Your task to perform on an android device: Open the calendar app, open the side menu, and click the "Day" option Image 0: 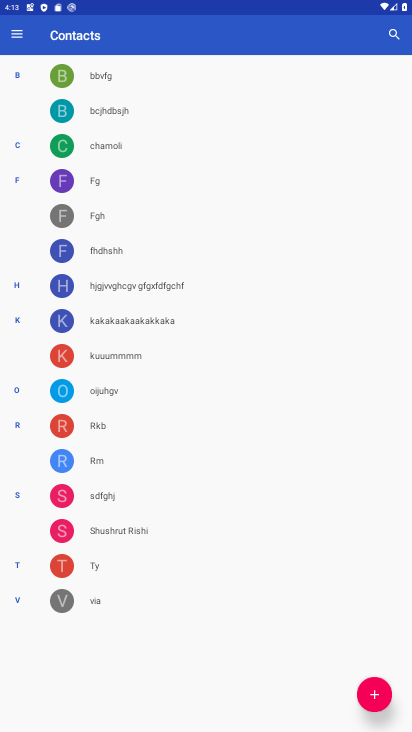
Step 0: press home button
Your task to perform on an android device: Open the calendar app, open the side menu, and click the "Day" option Image 1: 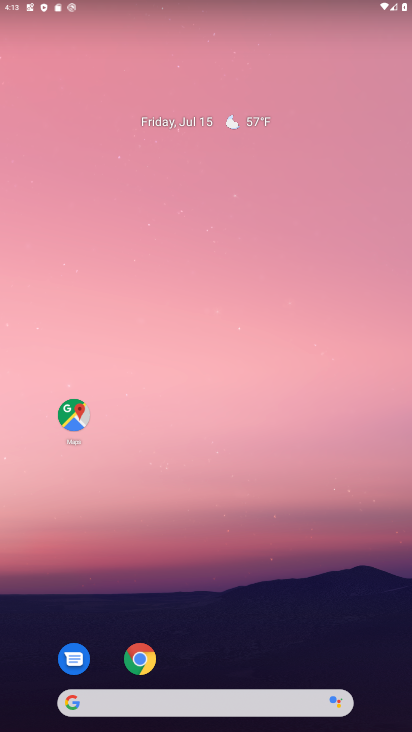
Step 1: drag from (283, 631) to (206, 71)
Your task to perform on an android device: Open the calendar app, open the side menu, and click the "Day" option Image 2: 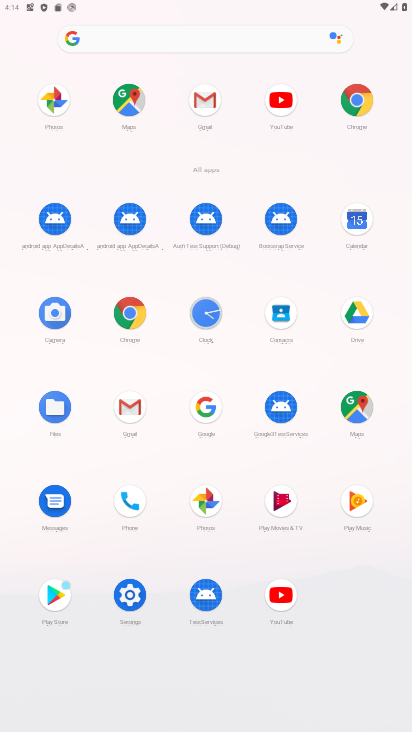
Step 2: click (365, 232)
Your task to perform on an android device: Open the calendar app, open the side menu, and click the "Day" option Image 3: 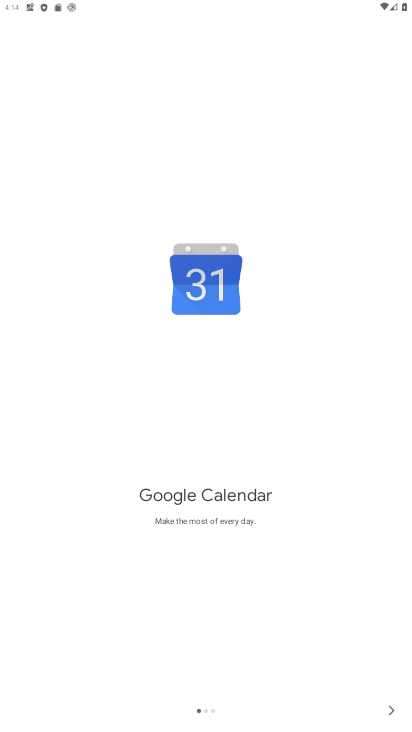
Step 3: click (397, 711)
Your task to perform on an android device: Open the calendar app, open the side menu, and click the "Day" option Image 4: 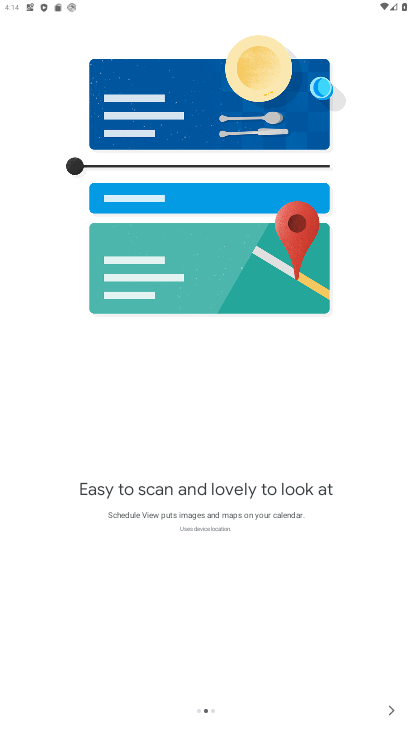
Step 4: click (396, 711)
Your task to perform on an android device: Open the calendar app, open the side menu, and click the "Day" option Image 5: 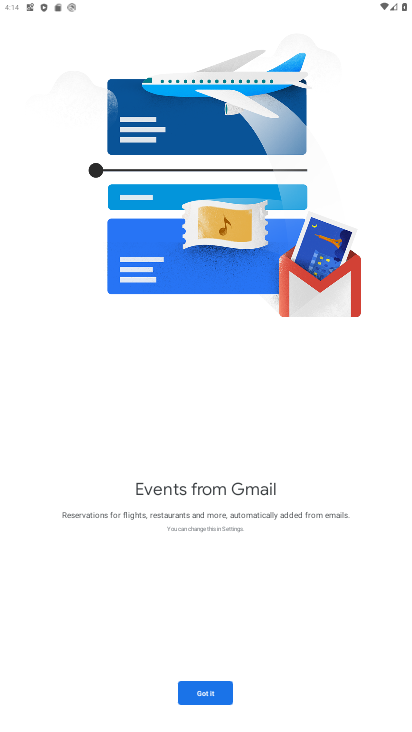
Step 5: click (201, 699)
Your task to perform on an android device: Open the calendar app, open the side menu, and click the "Day" option Image 6: 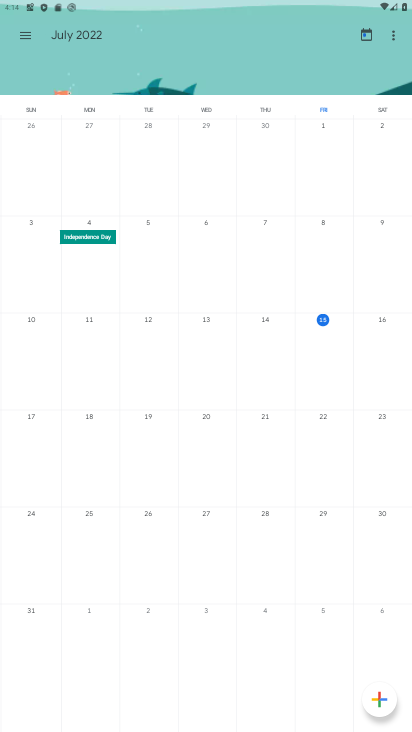
Step 6: click (24, 29)
Your task to perform on an android device: Open the calendar app, open the side menu, and click the "Day" option Image 7: 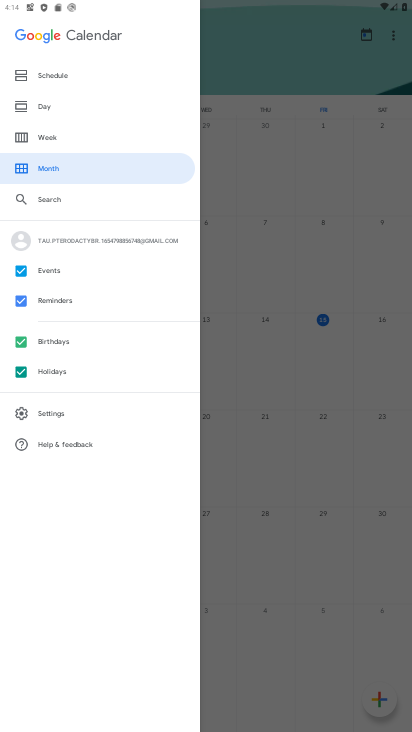
Step 7: click (45, 100)
Your task to perform on an android device: Open the calendar app, open the side menu, and click the "Day" option Image 8: 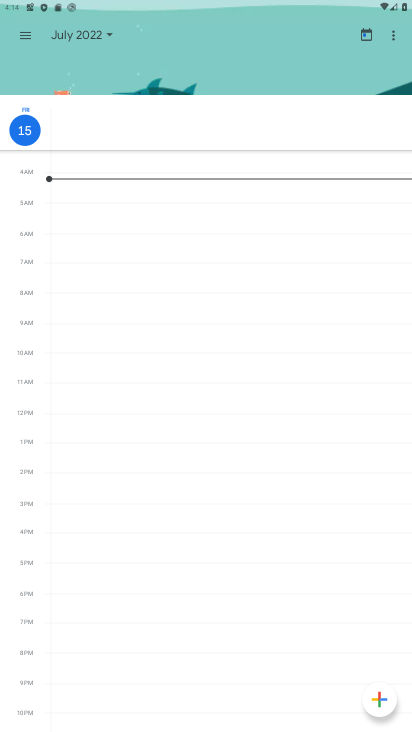
Step 8: task complete